Your task to perform on an android device: delete the emails in spam in the gmail app Image 0: 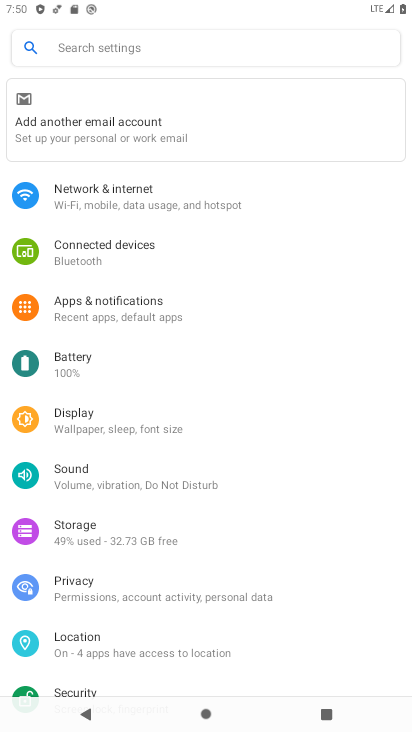
Step 0: press home button
Your task to perform on an android device: delete the emails in spam in the gmail app Image 1: 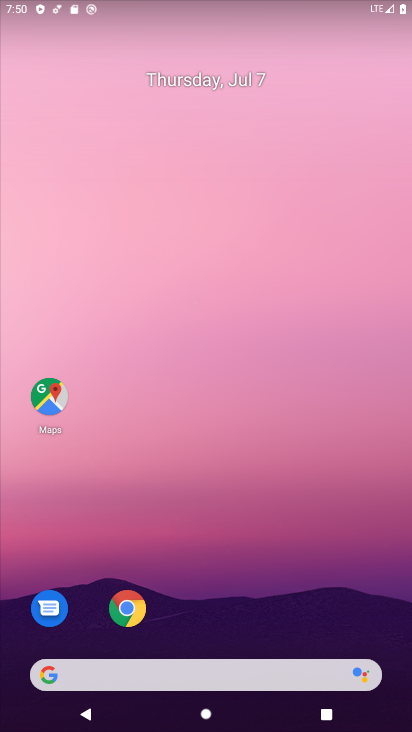
Step 1: drag from (383, 630) to (322, 186)
Your task to perform on an android device: delete the emails in spam in the gmail app Image 2: 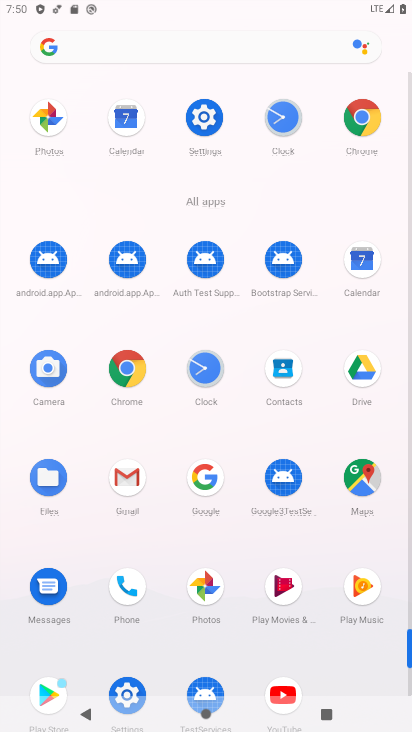
Step 2: click (128, 479)
Your task to perform on an android device: delete the emails in spam in the gmail app Image 3: 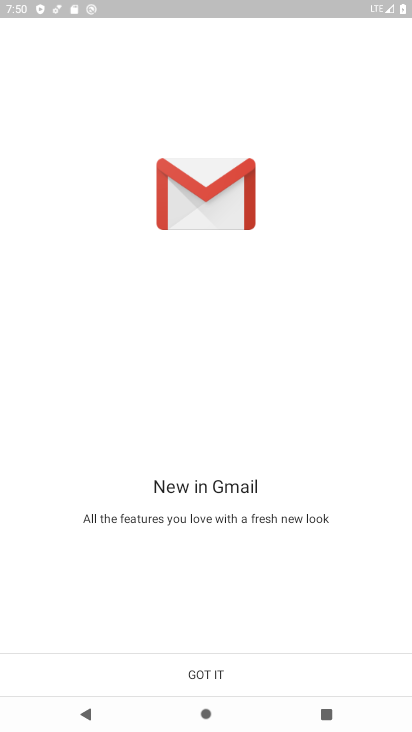
Step 3: click (192, 687)
Your task to perform on an android device: delete the emails in spam in the gmail app Image 4: 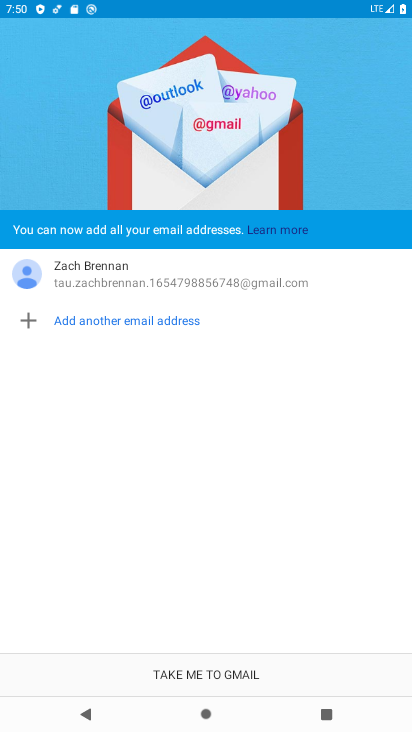
Step 4: click (198, 679)
Your task to perform on an android device: delete the emails in spam in the gmail app Image 5: 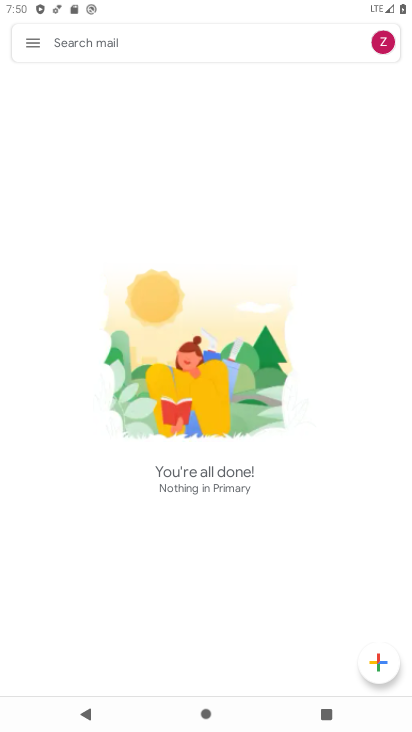
Step 5: click (31, 44)
Your task to perform on an android device: delete the emails in spam in the gmail app Image 6: 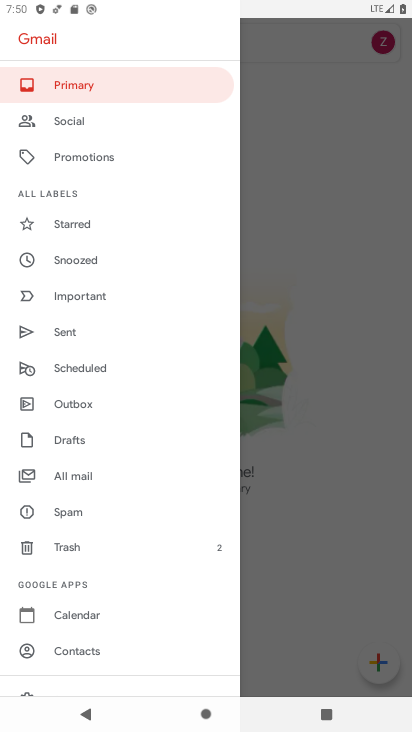
Step 6: click (74, 509)
Your task to perform on an android device: delete the emails in spam in the gmail app Image 7: 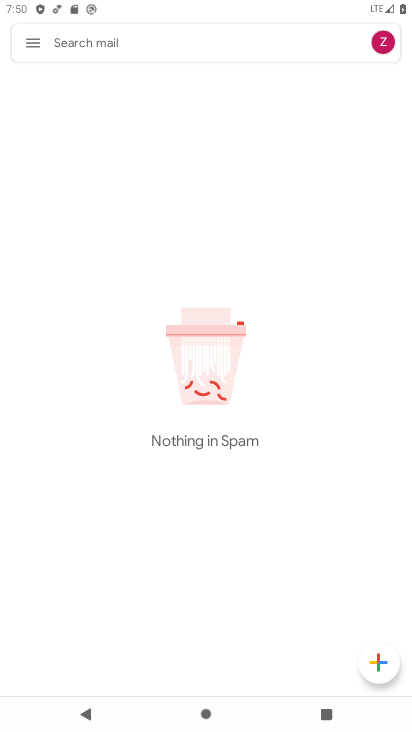
Step 7: task complete